Your task to perform on an android device: Search for the best selling TV on Best Buy. Image 0: 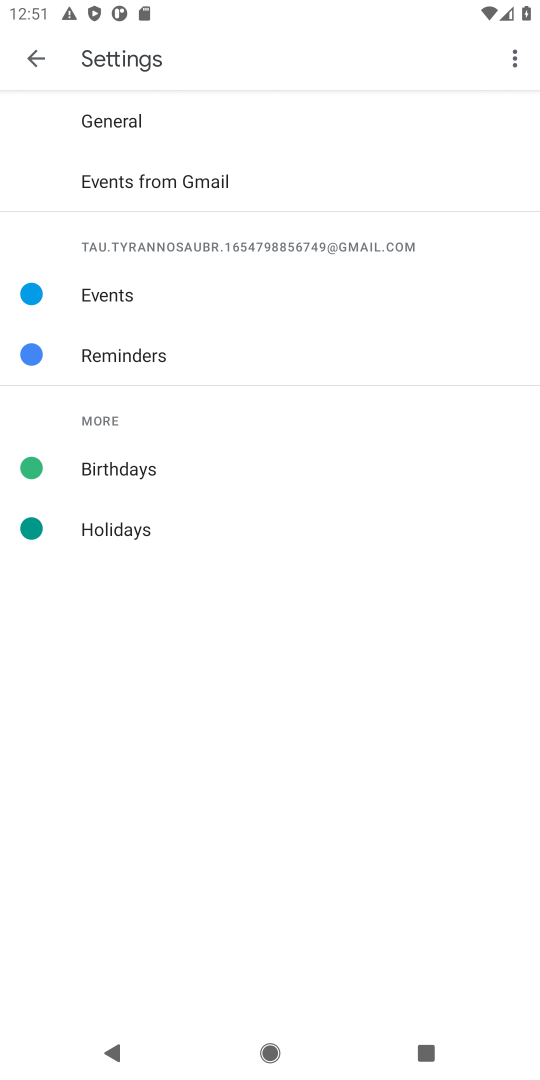
Step 0: press home button
Your task to perform on an android device: Search for the best selling TV on Best Buy. Image 1: 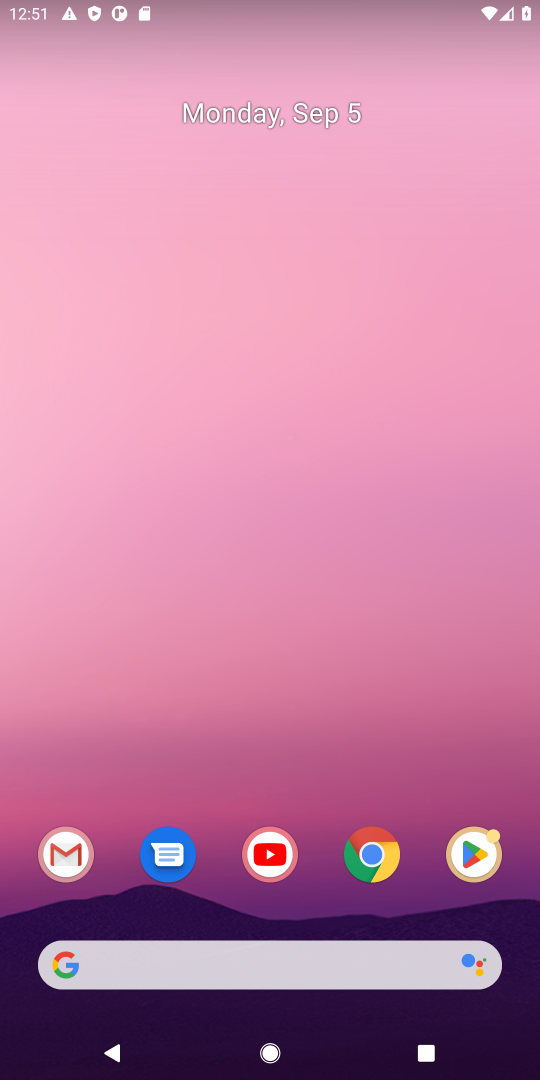
Step 1: click (346, 965)
Your task to perform on an android device: Search for the best selling TV on Best Buy. Image 2: 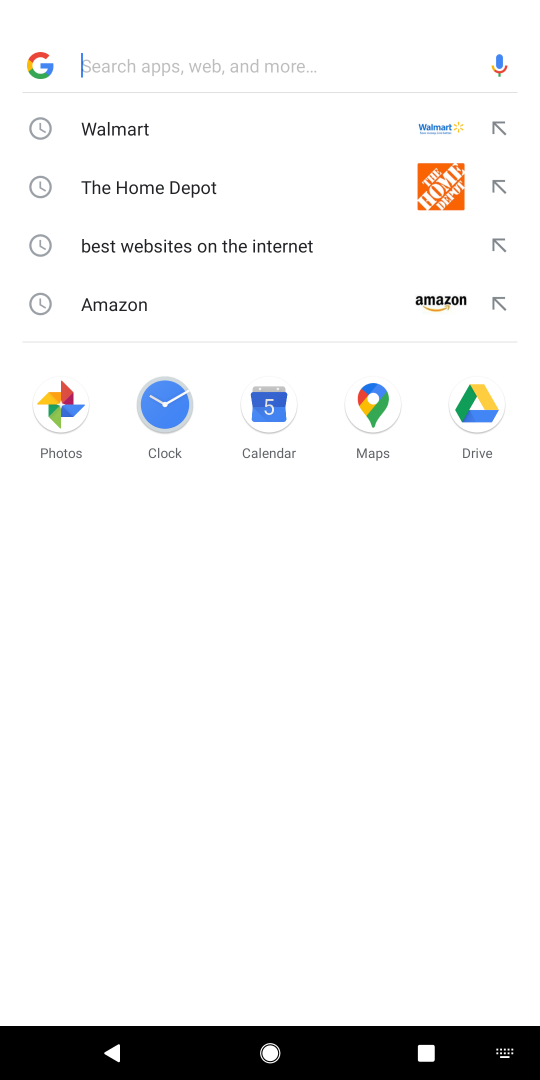
Step 2: type "best buy"
Your task to perform on an android device: Search for the best selling TV on Best Buy. Image 3: 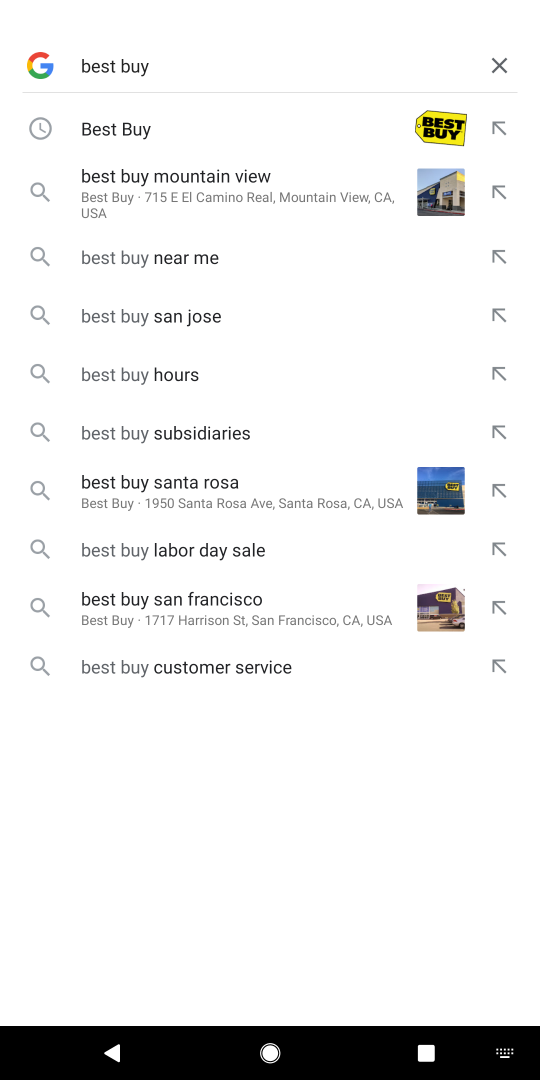
Step 3: press enter
Your task to perform on an android device: Search for the best selling TV on Best Buy. Image 4: 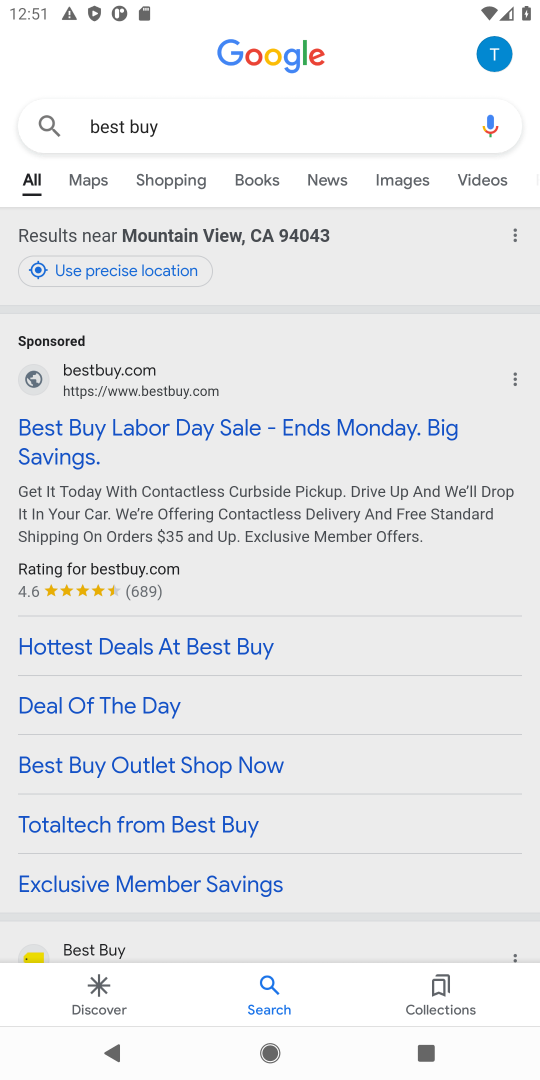
Step 4: click (190, 435)
Your task to perform on an android device: Search for the best selling TV on Best Buy. Image 5: 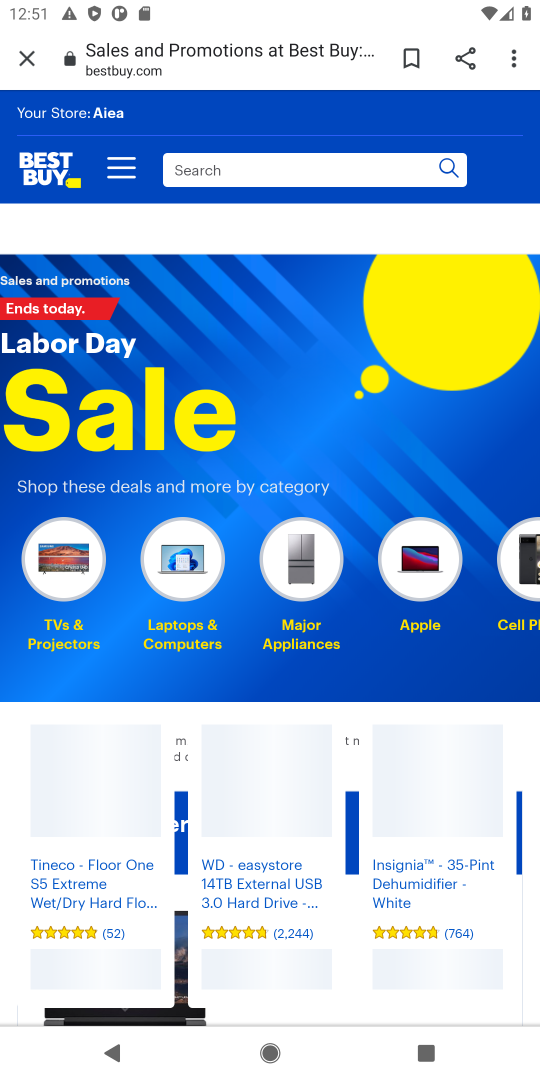
Step 5: click (231, 171)
Your task to perform on an android device: Search for the best selling TV on Best Buy. Image 6: 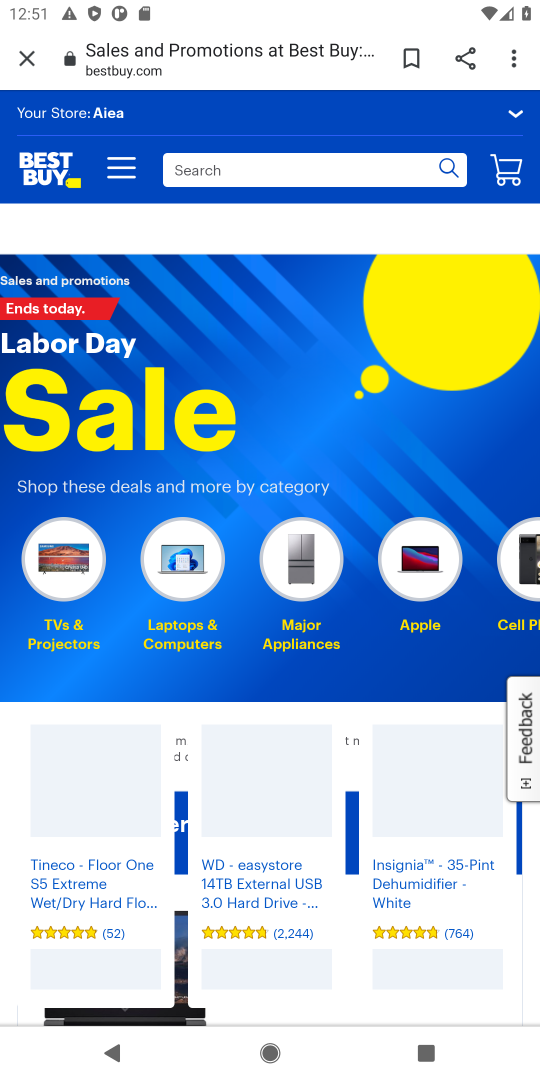
Step 6: click (224, 171)
Your task to perform on an android device: Search for the best selling TV on Best Buy. Image 7: 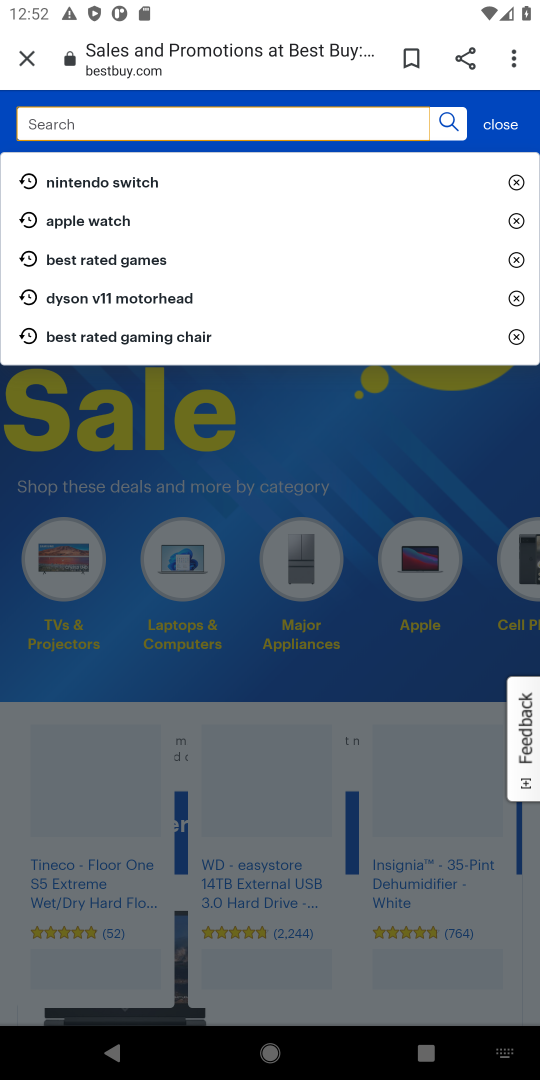
Step 7: press enter
Your task to perform on an android device: Search for the best selling TV on Best Buy. Image 8: 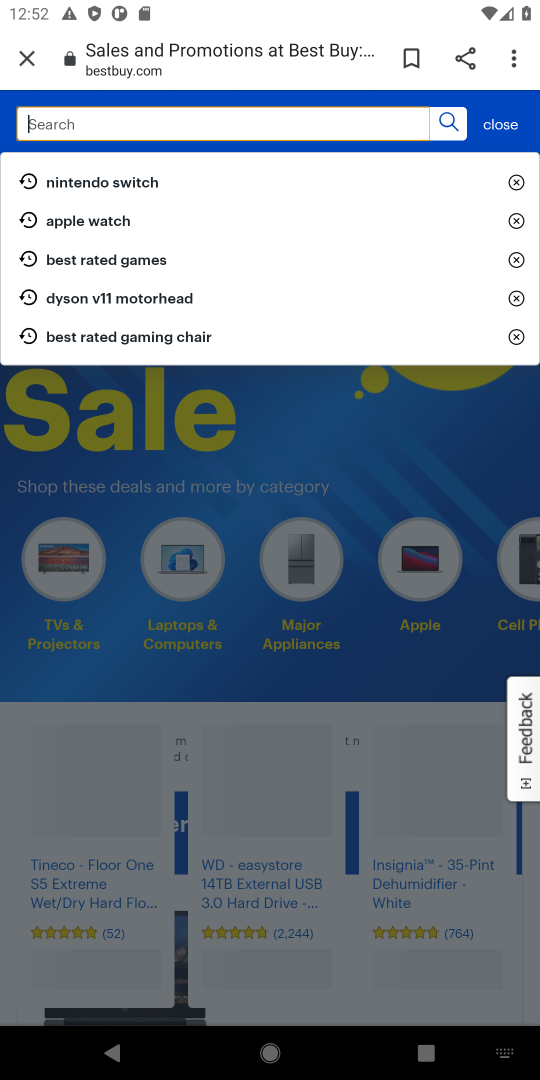
Step 8: type "best selling tv"
Your task to perform on an android device: Search for the best selling TV on Best Buy. Image 9: 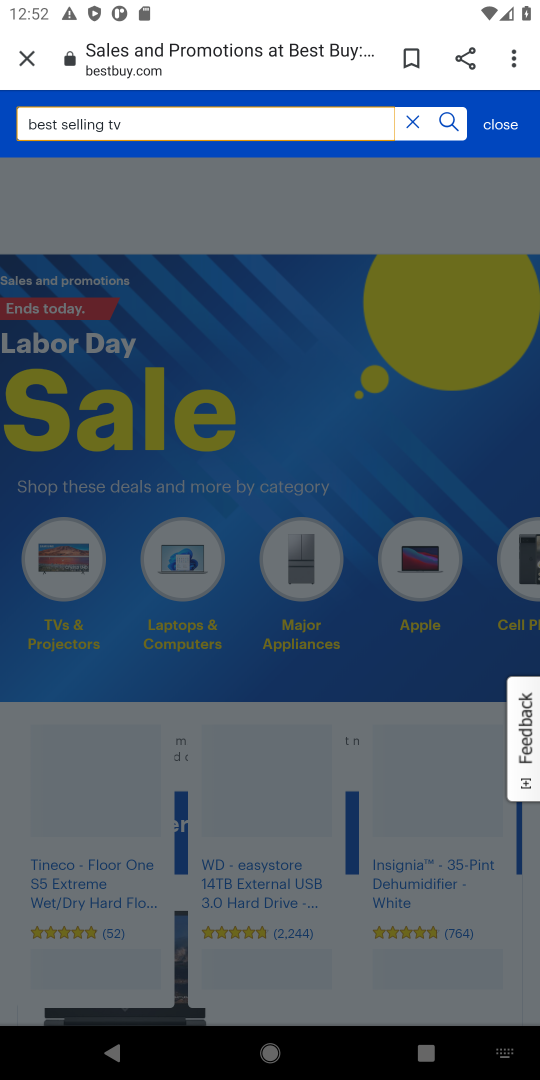
Step 9: click (453, 127)
Your task to perform on an android device: Search for the best selling TV on Best Buy. Image 10: 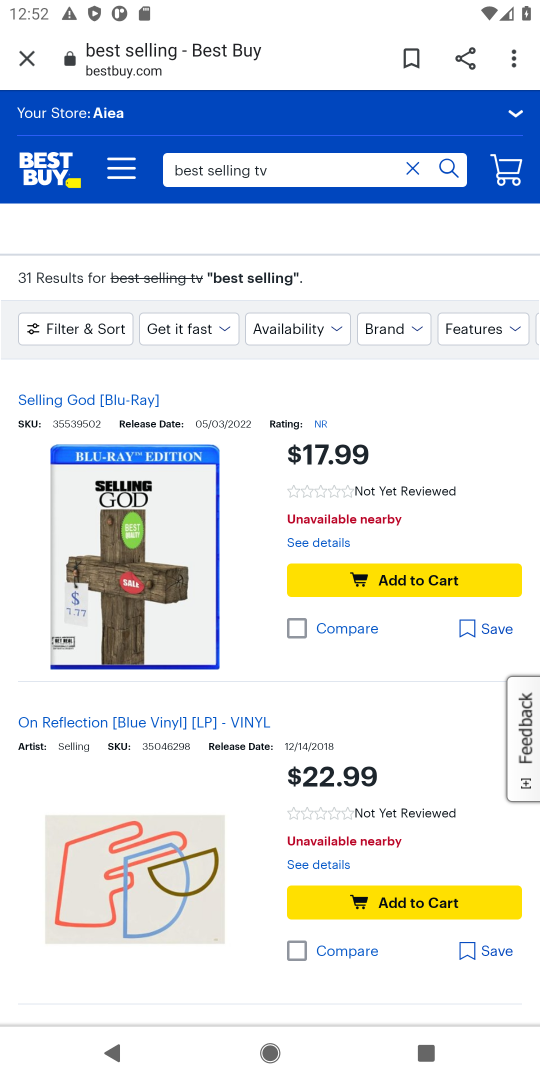
Step 10: task complete